Your task to perform on an android device: What's the weather going to be tomorrow? Image 0: 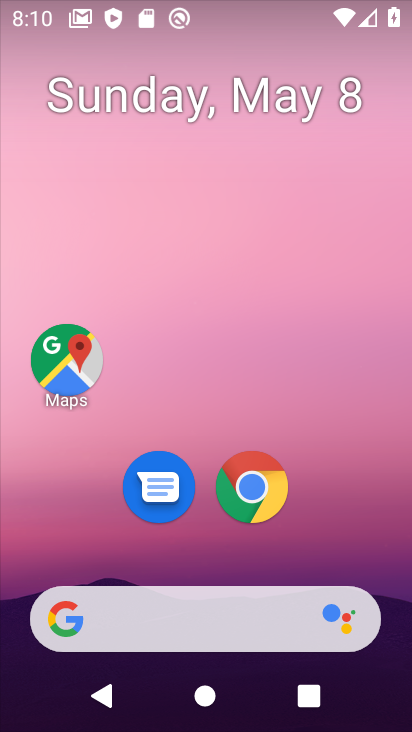
Step 0: click (254, 603)
Your task to perform on an android device: What's the weather going to be tomorrow? Image 1: 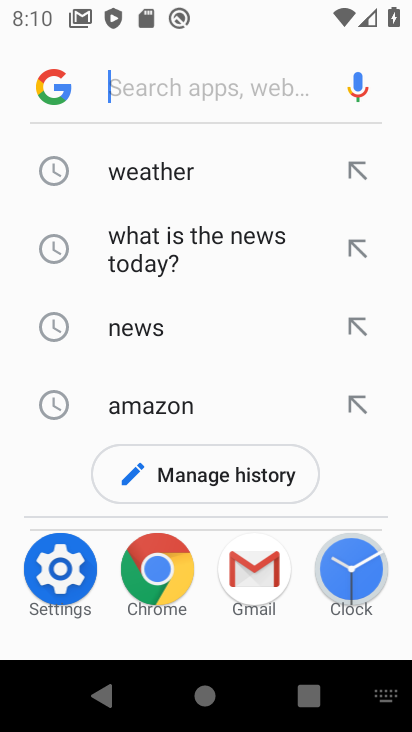
Step 1: click (203, 173)
Your task to perform on an android device: What's the weather going to be tomorrow? Image 2: 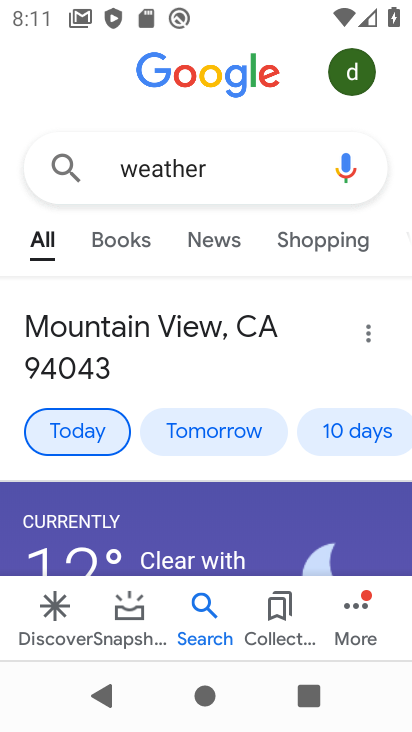
Step 2: click (210, 442)
Your task to perform on an android device: What's the weather going to be tomorrow? Image 3: 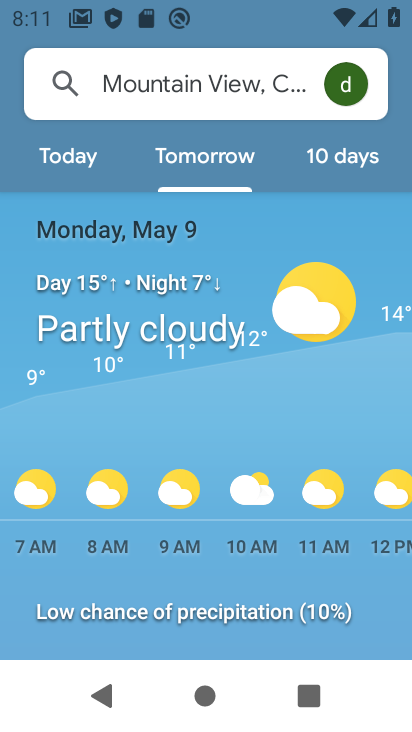
Step 3: task complete